Your task to perform on an android device: Empty the shopping cart on bestbuy. Search for "bose soundsport free" on bestbuy, select the first entry, and add it to the cart. Image 0: 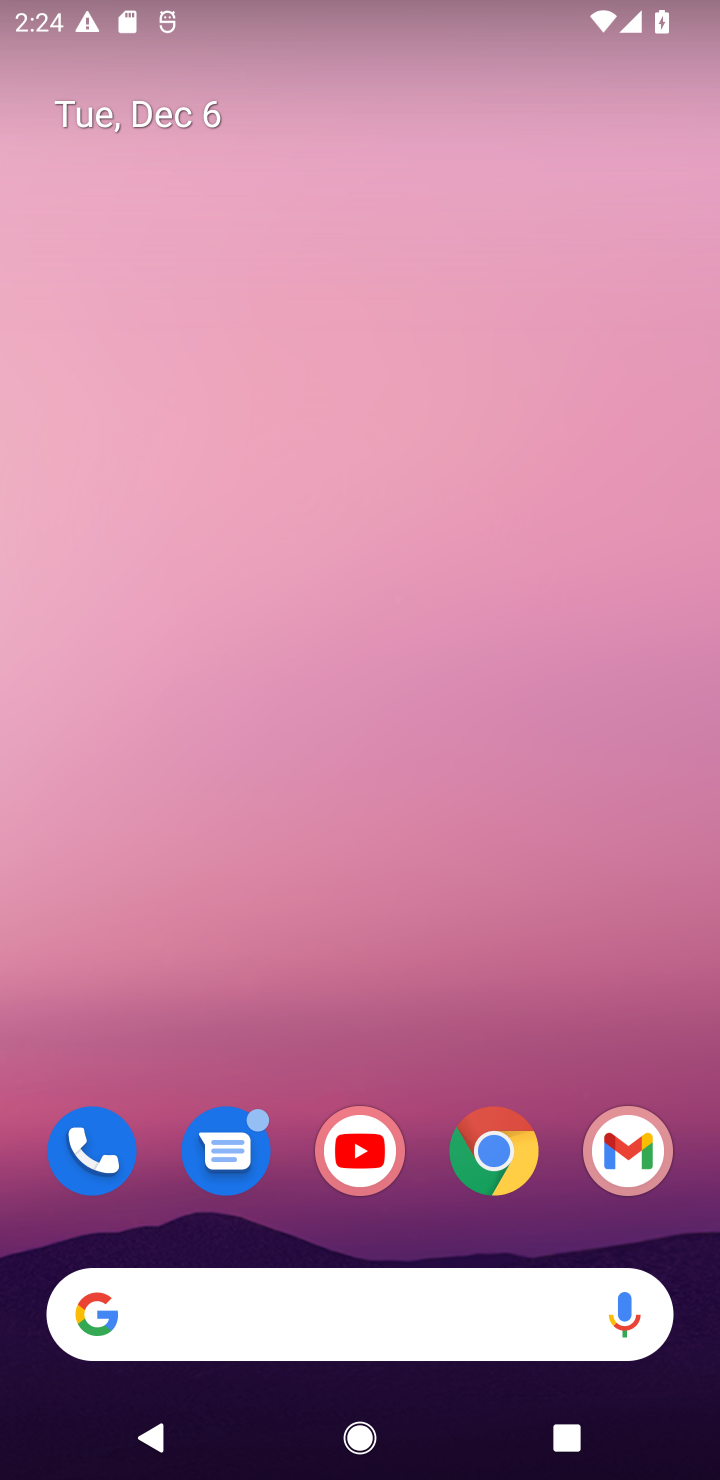
Step 0: click (503, 1158)
Your task to perform on an android device: Empty the shopping cart on bestbuy. Search for "bose soundsport free" on bestbuy, select the first entry, and add it to the cart. Image 1: 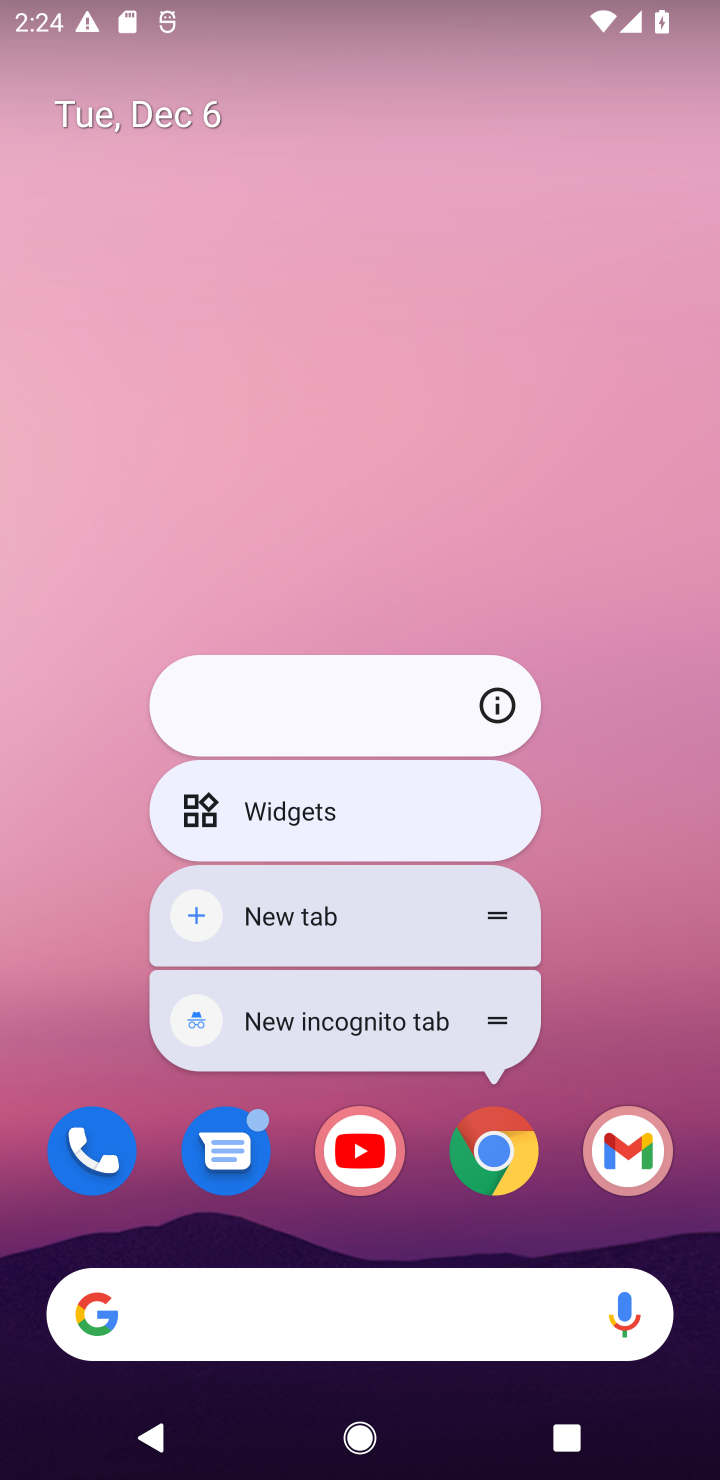
Step 1: click (503, 1158)
Your task to perform on an android device: Empty the shopping cart on bestbuy. Search for "bose soundsport free" on bestbuy, select the first entry, and add it to the cart. Image 2: 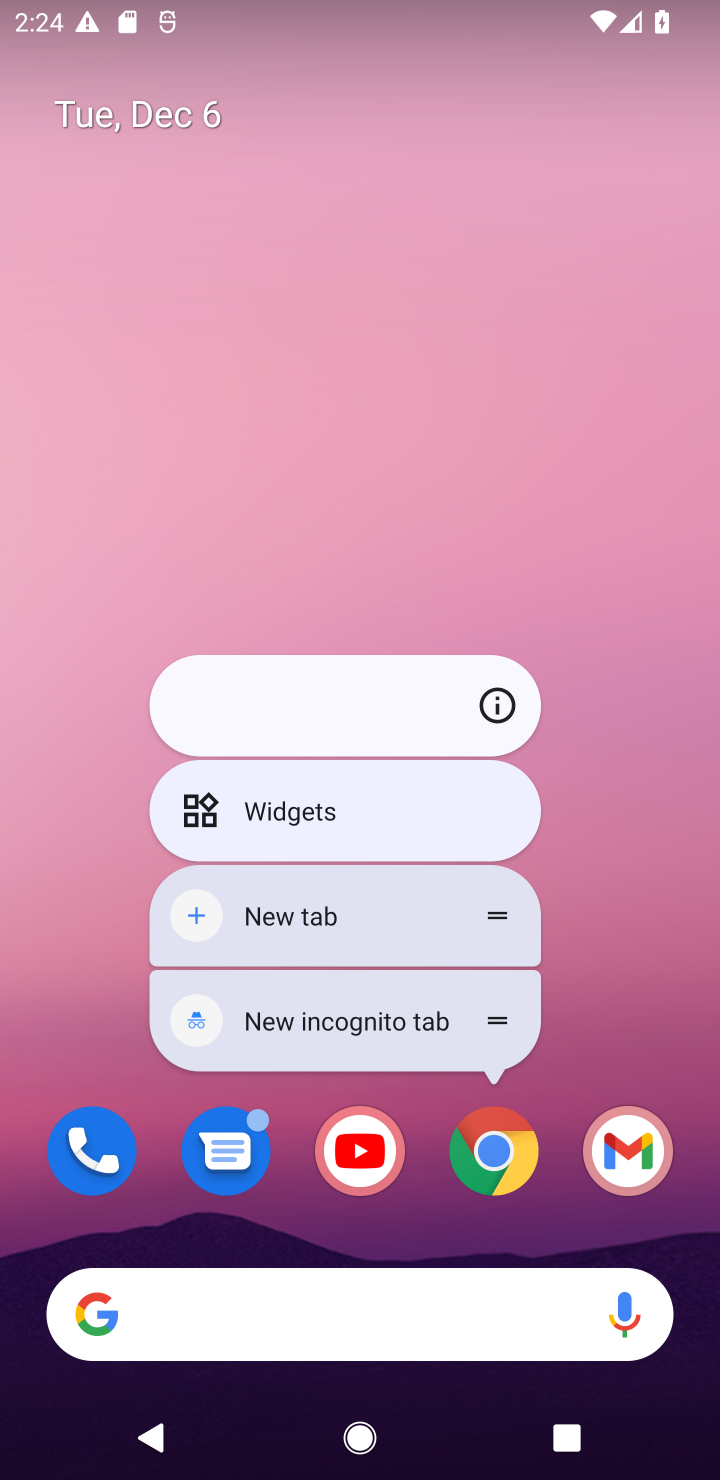
Step 2: click (503, 1163)
Your task to perform on an android device: Empty the shopping cart on bestbuy. Search for "bose soundsport free" on bestbuy, select the first entry, and add it to the cart. Image 3: 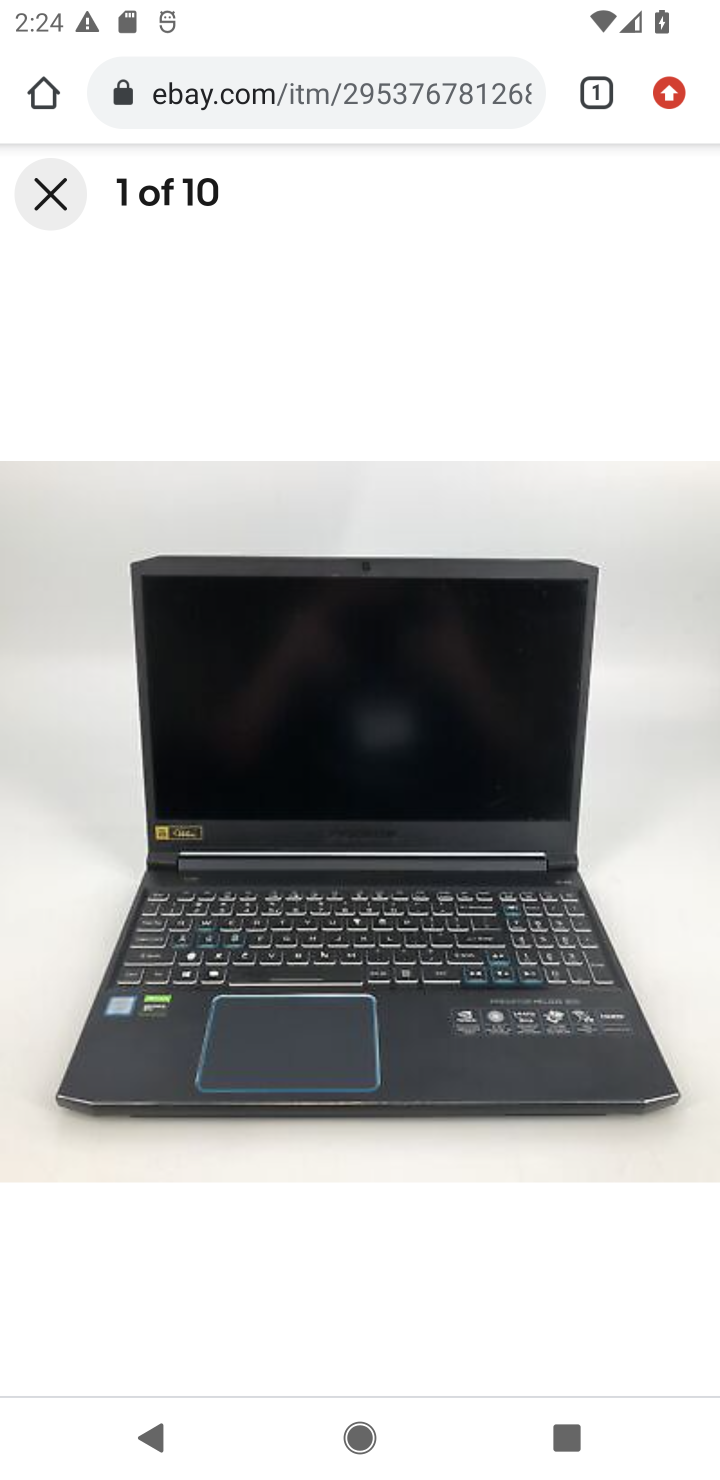
Step 3: click (247, 94)
Your task to perform on an android device: Empty the shopping cart on bestbuy. Search for "bose soundsport free" on bestbuy, select the first entry, and add it to the cart. Image 4: 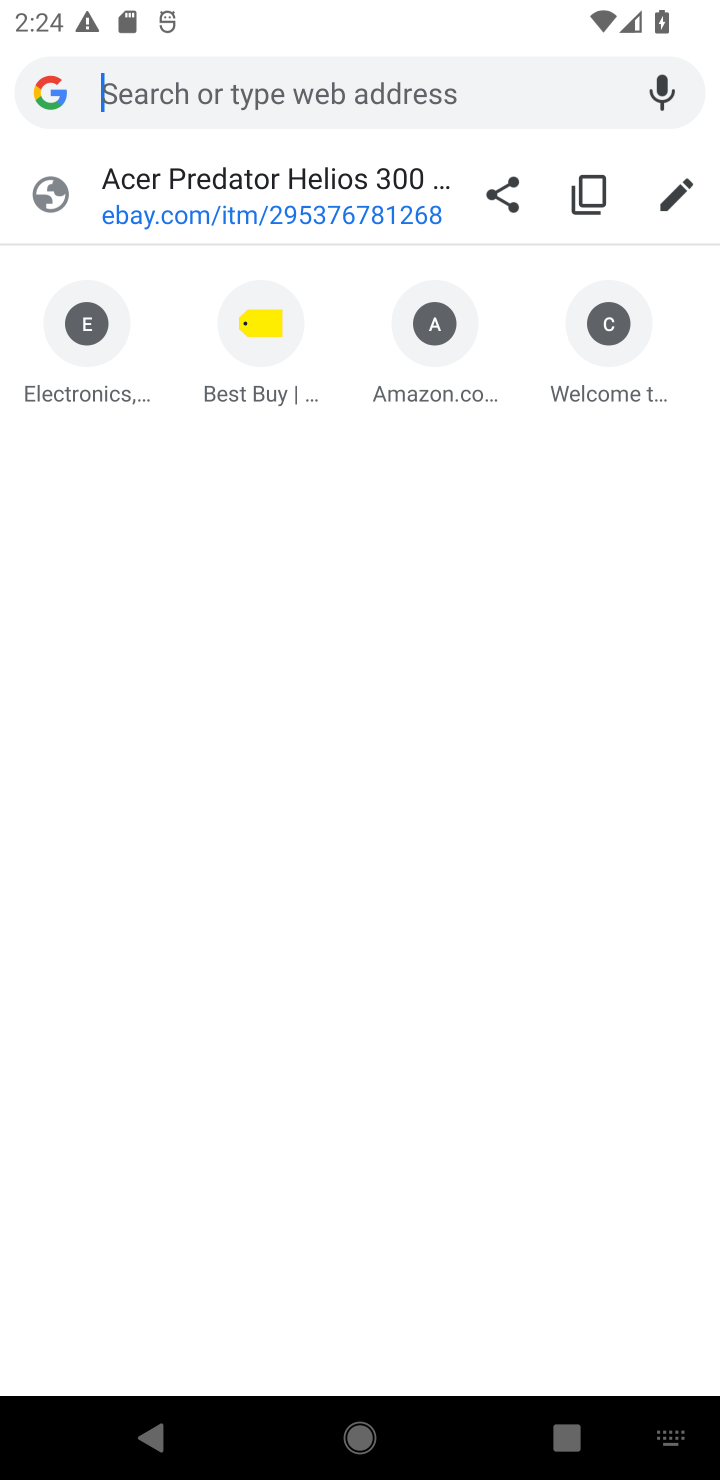
Step 4: click (251, 351)
Your task to perform on an android device: Empty the shopping cart on bestbuy. Search for "bose soundsport free" on bestbuy, select the first entry, and add it to the cart. Image 5: 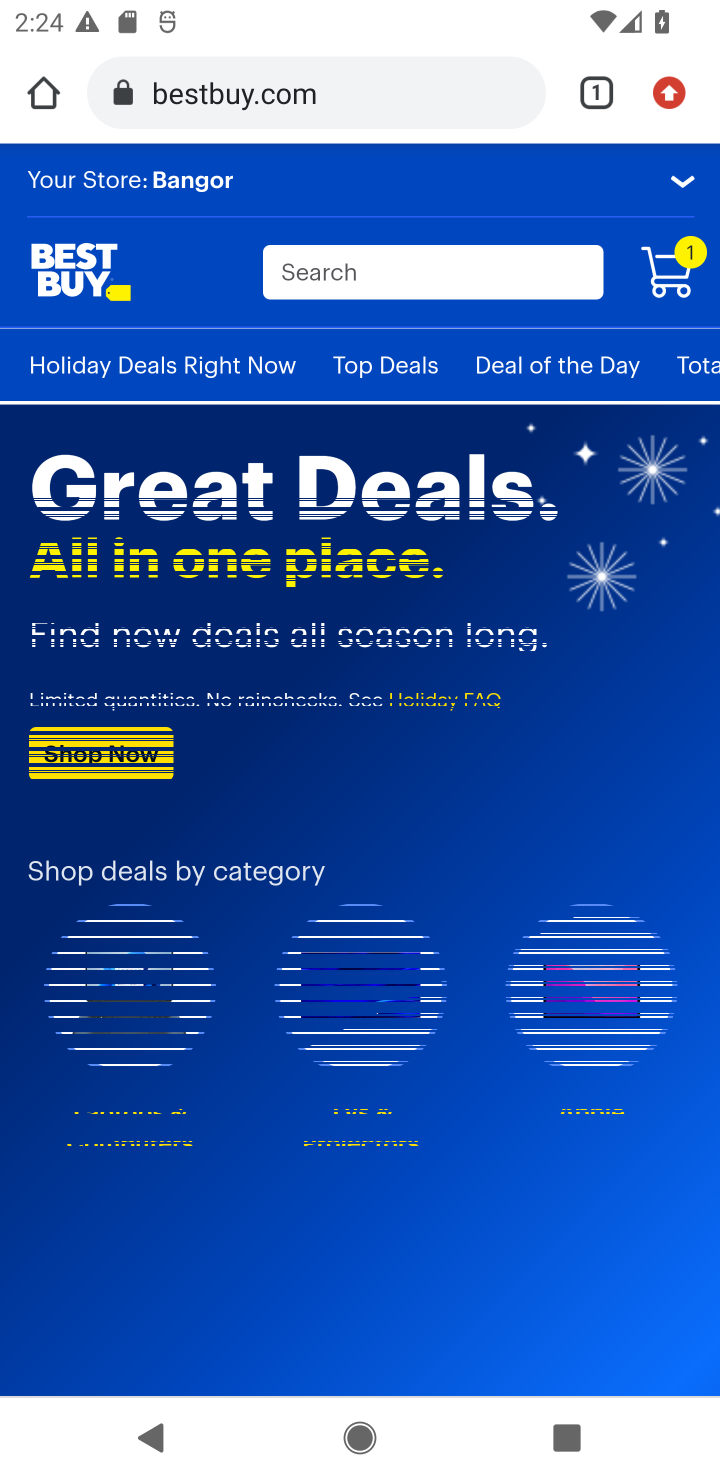
Step 5: click (675, 284)
Your task to perform on an android device: Empty the shopping cart on bestbuy. Search for "bose soundsport free" on bestbuy, select the first entry, and add it to the cart. Image 6: 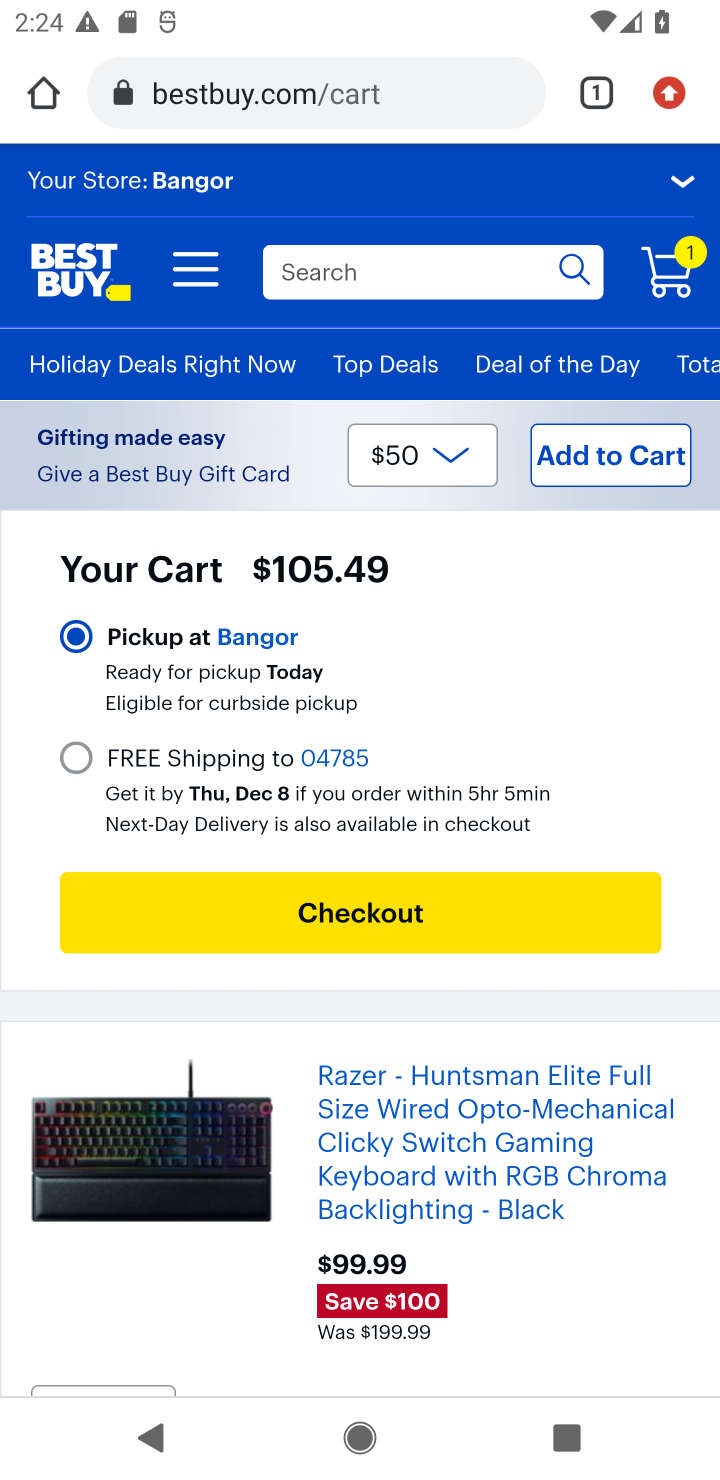
Step 6: drag from (453, 991) to (414, 510)
Your task to perform on an android device: Empty the shopping cart on bestbuy. Search for "bose soundsport free" on bestbuy, select the first entry, and add it to the cart. Image 7: 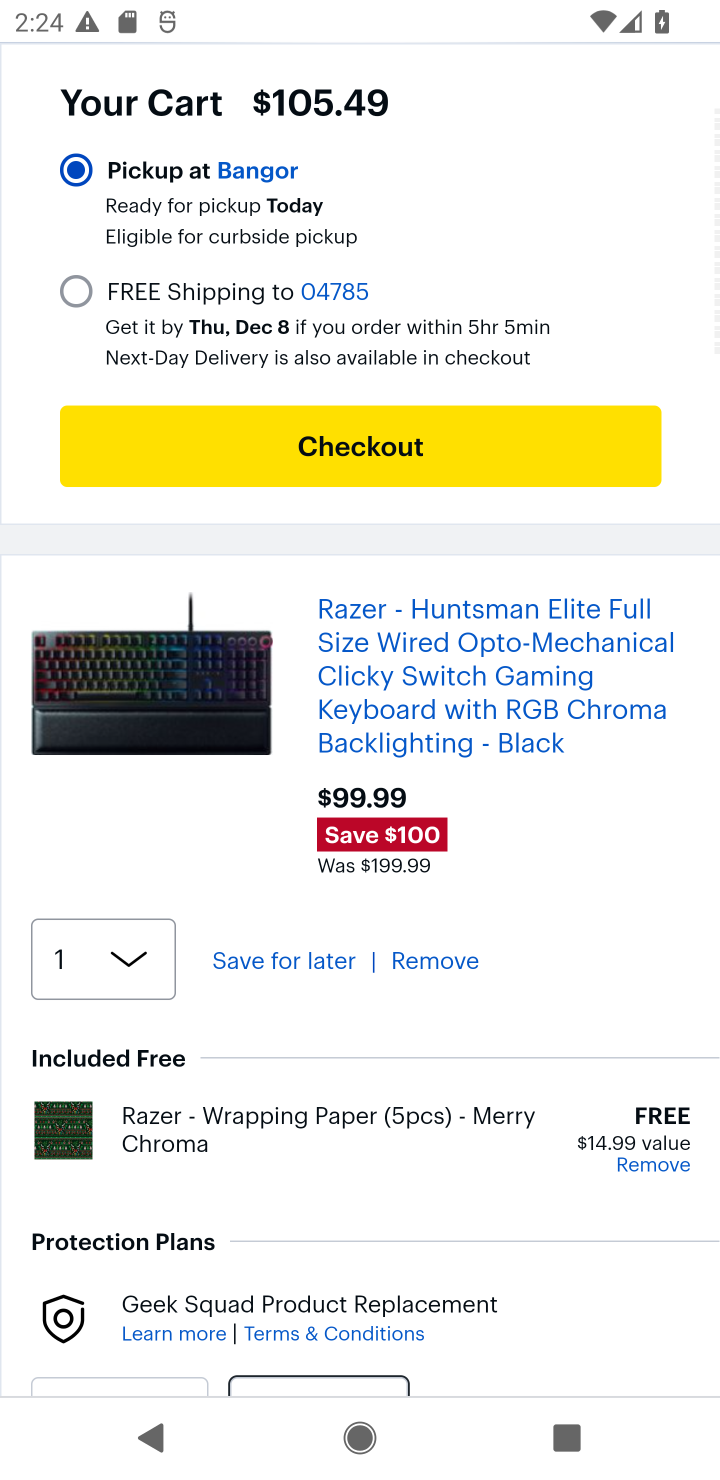
Step 7: click (431, 957)
Your task to perform on an android device: Empty the shopping cart on bestbuy. Search for "bose soundsport free" on bestbuy, select the first entry, and add it to the cart. Image 8: 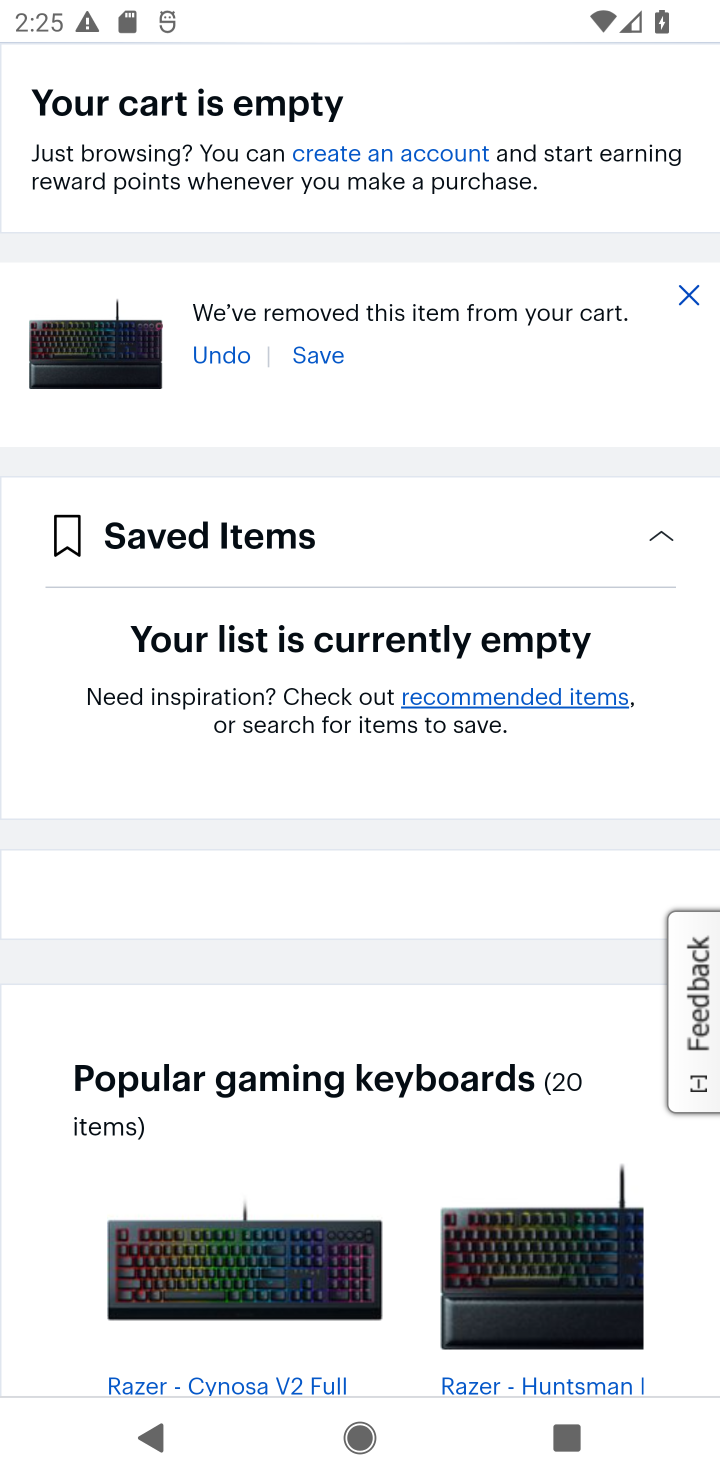
Step 8: drag from (438, 429) to (426, 1048)
Your task to perform on an android device: Empty the shopping cart on bestbuy. Search for "bose soundsport free" on bestbuy, select the first entry, and add it to the cart. Image 9: 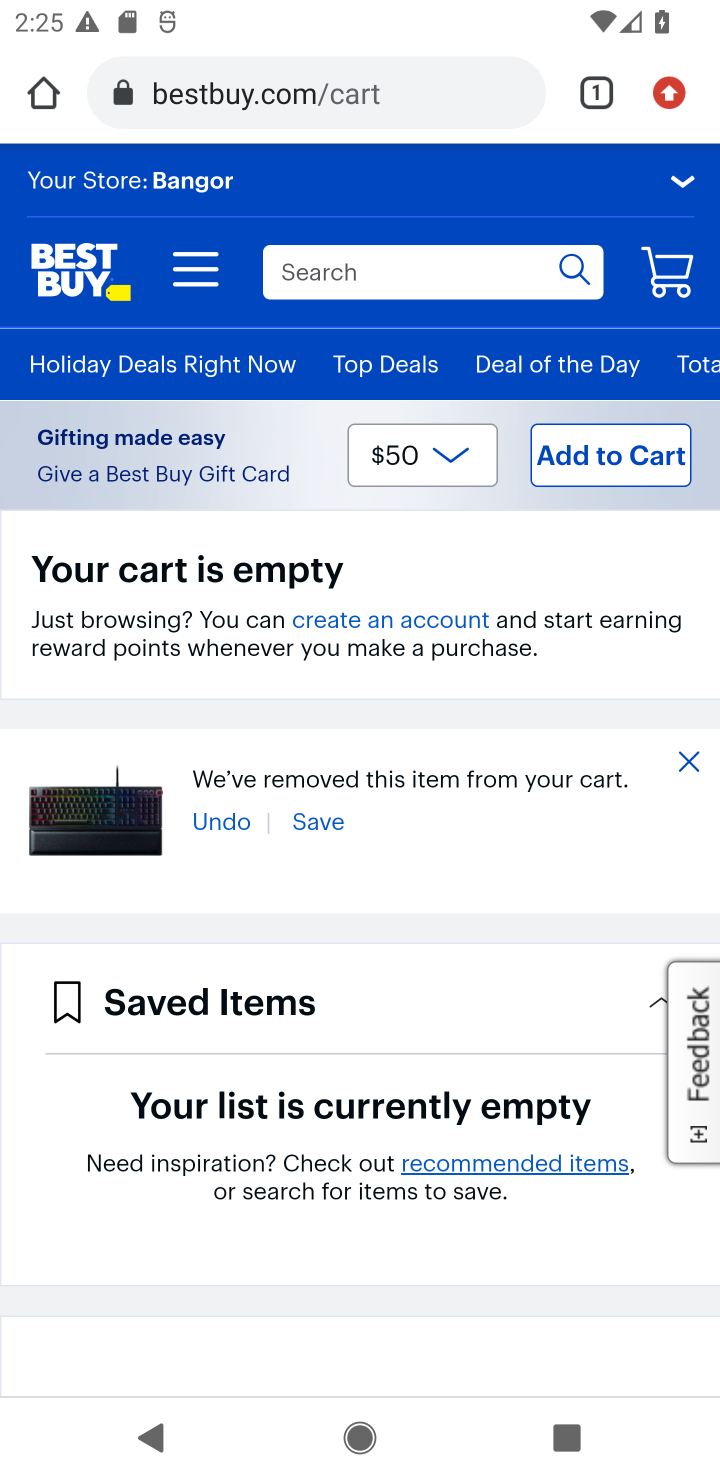
Step 9: click (315, 268)
Your task to perform on an android device: Empty the shopping cart on bestbuy. Search for "bose soundsport free" on bestbuy, select the first entry, and add it to the cart. Image 10: 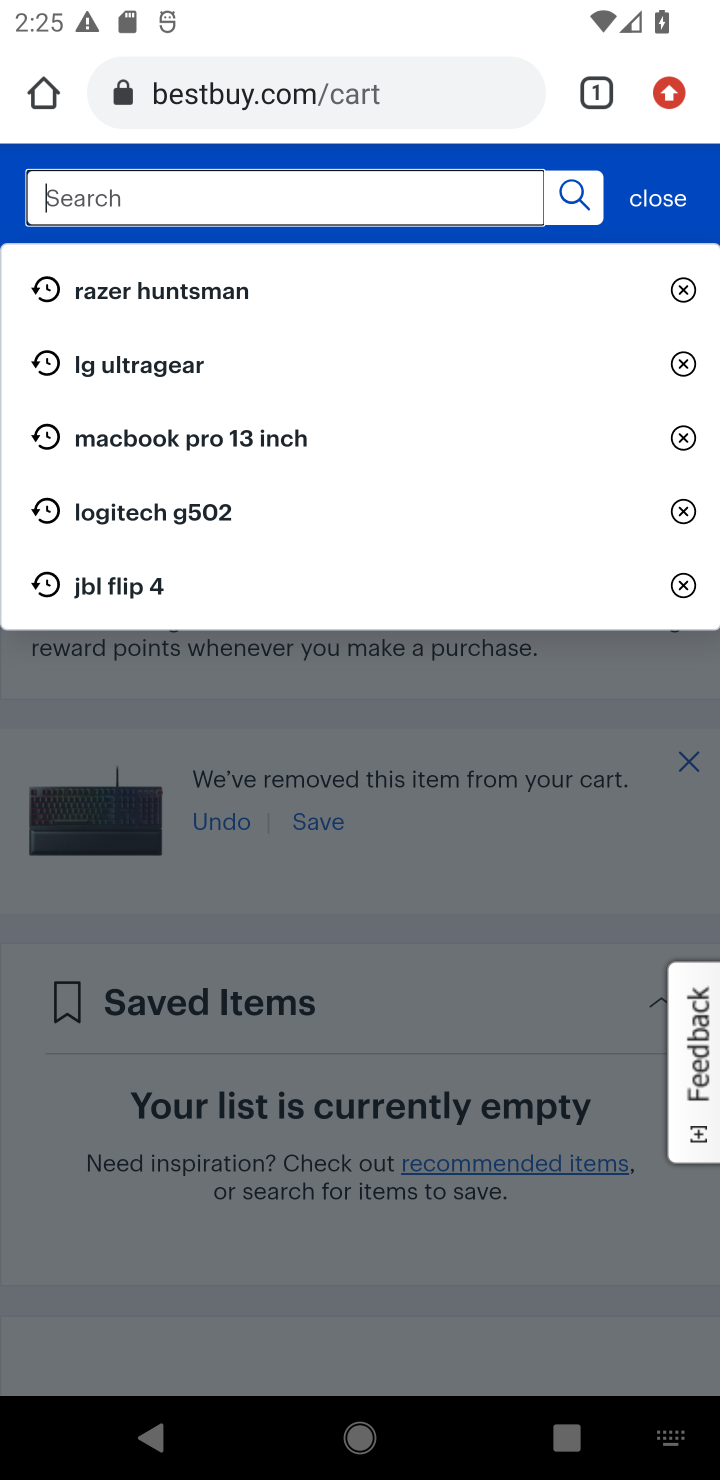
Step 10: type "bose soundsport free"
Your task to perform on an android device: Empty the shopping cart on bestbuy. Search for "bose soundsport free" on bestbuy, select the first entry, and add it to the cart. Image 11: 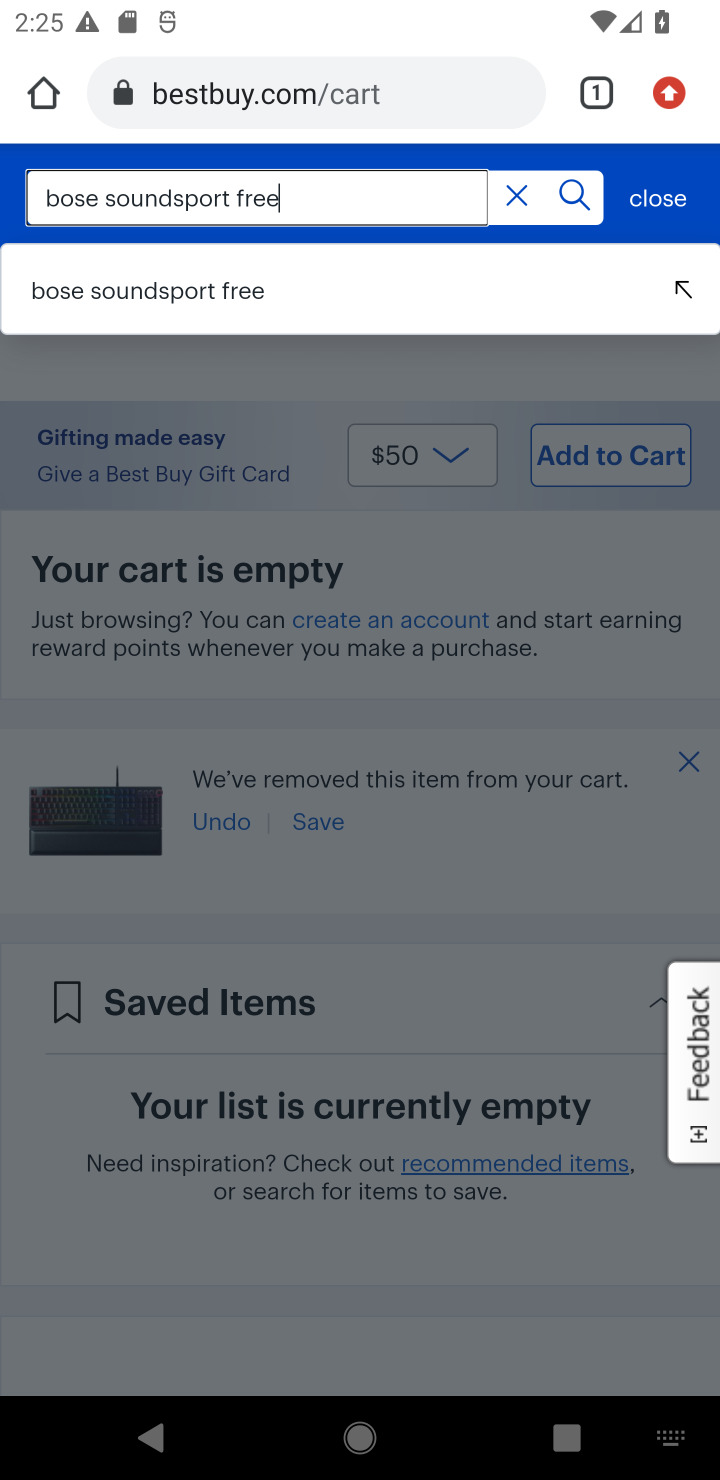
Step 11: click (221, 292)
Your task to perform on an android device: Empty the shopping cart on bestbuy. Search for "bose soundsport free" on bestbuy, select the first entry, and add it to the cart. Image 12: 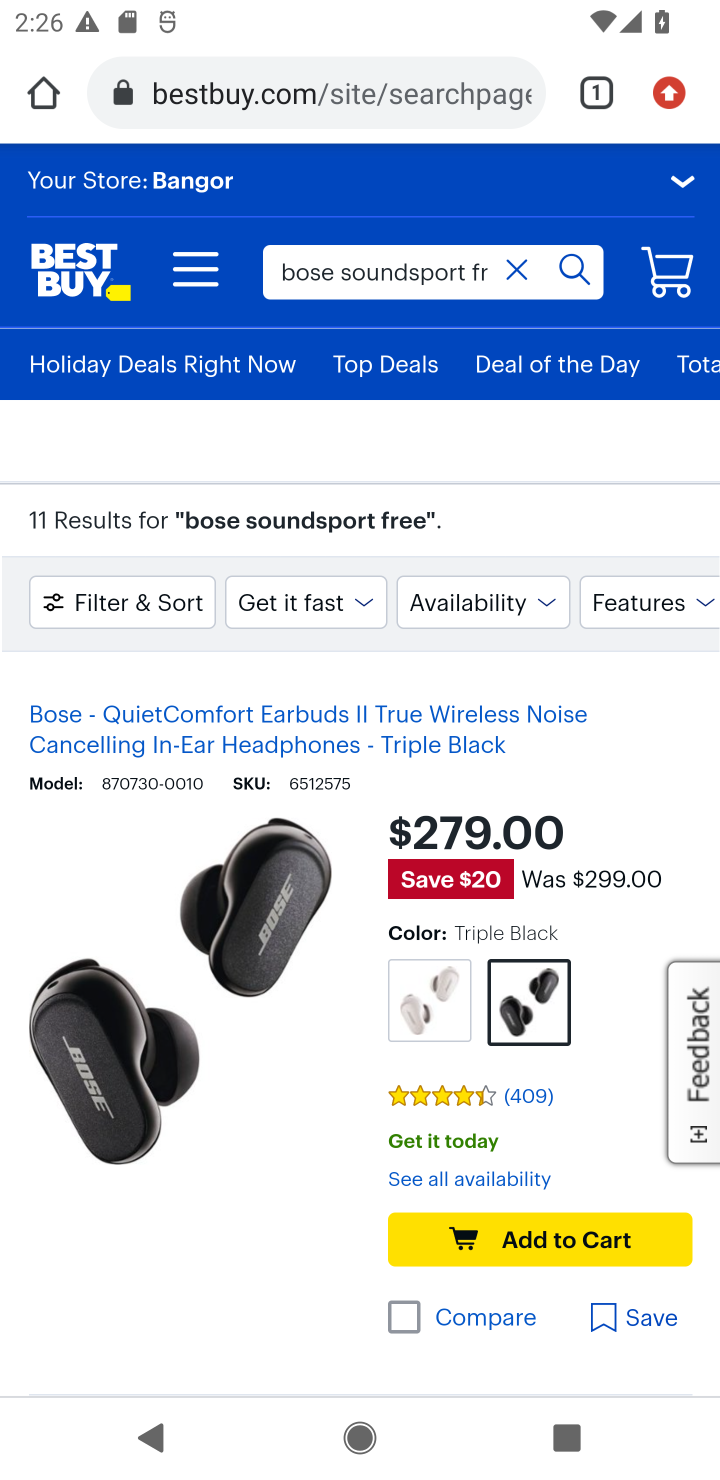
Step 12: task complete